Your task to perform on an android device: toggle pop-ups in chrome Image 0: 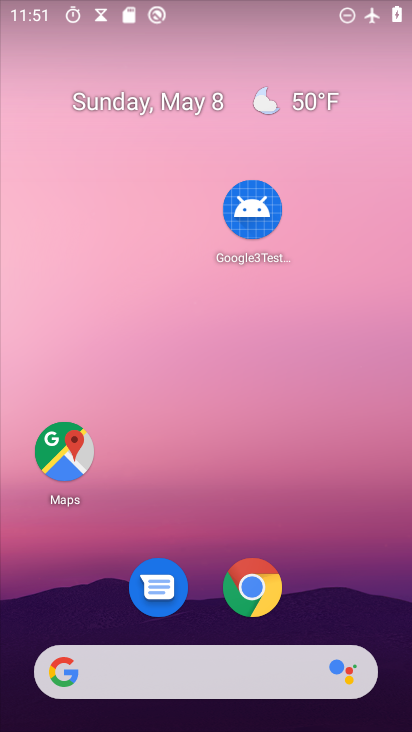
Step 0: click (262, 580)
Your task to perform on an android device: toggle pop-ups in chrome Image 1: 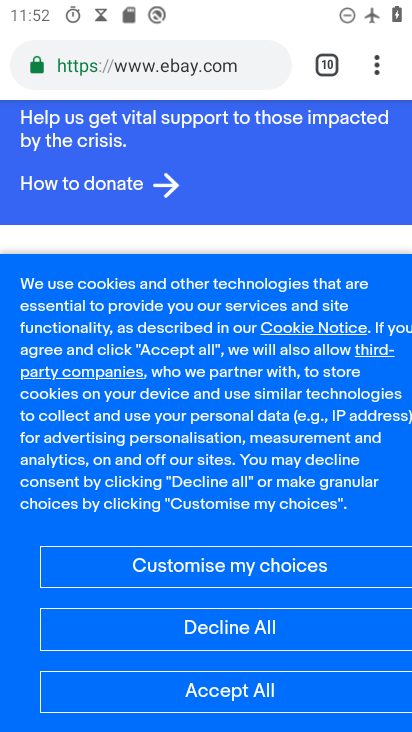
Step 1: drag from (376, 65) to (177, 640)
Your task to perform on an android device: toggle pop-ups in chrome Image 2: 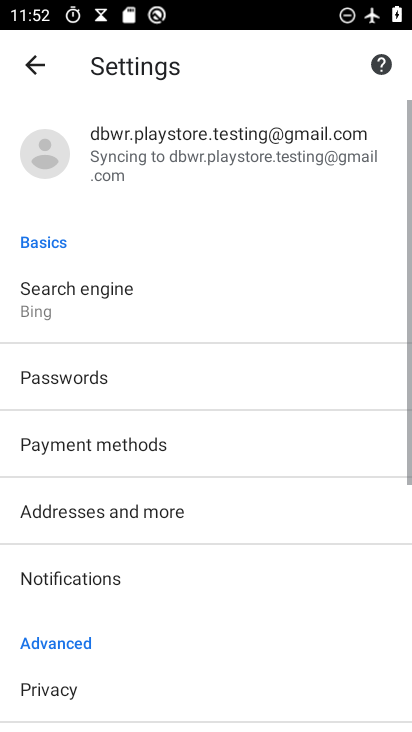
Step 2: drag from (177, 640) to (185, 286)
Your task to perform on an android device: toggle pop-ups in chrome Image 3: 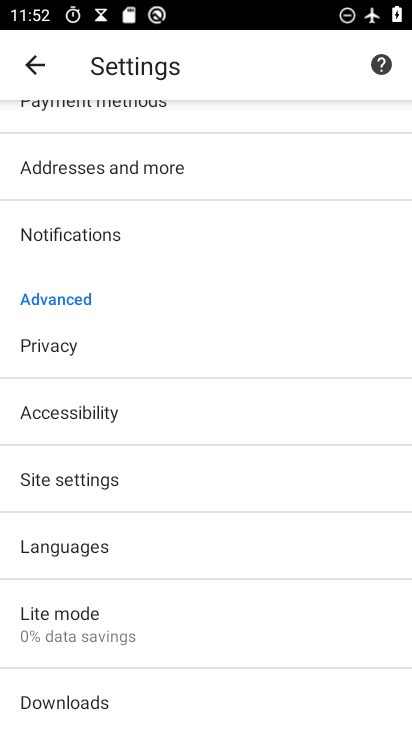
Step 3: drag from (167, 626) to (146, 475)
Your task to perform on an android device: toggle pop-ups in chrome Image 4: 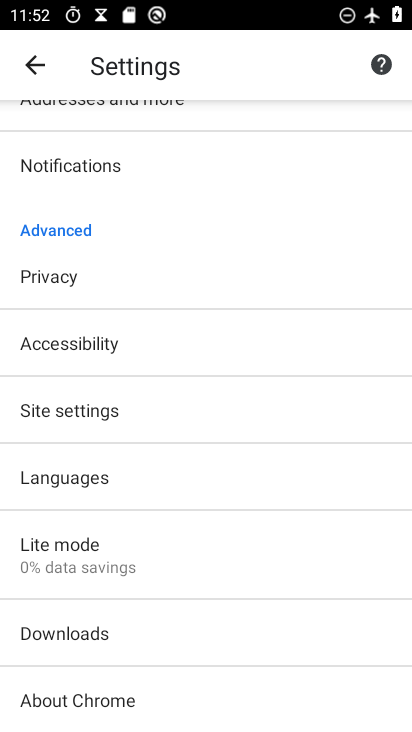
Step 4: click (69, 409)
Your task to perform on an android device: toggle pop-ups in chrome Image 5: 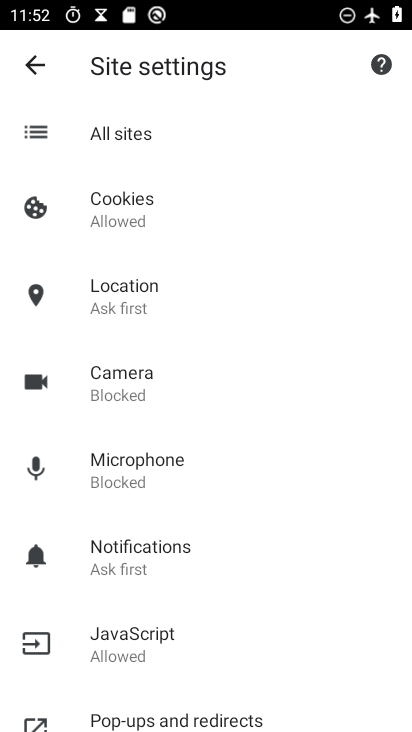
Step 5: drag from (204, 640) to (212, 284)
Your task to perform on an android device: toggle pop-ups in chrome Image 6: 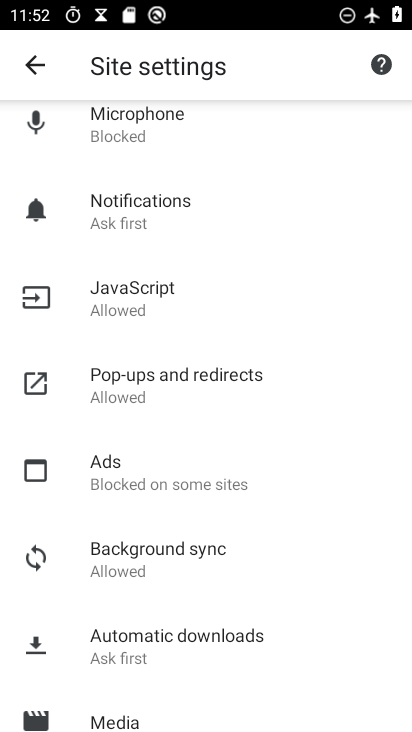
Step 6: click (154, 388)
Your task to perform on an android device: toggle pop-ups in chrome Image 7: 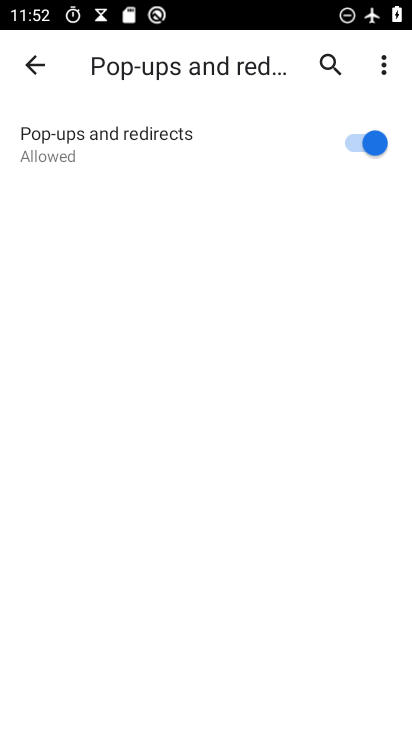
Step 7: click (374, 143)
Your task to perform on an android device: toggle pop-ups in chrome Image 8: 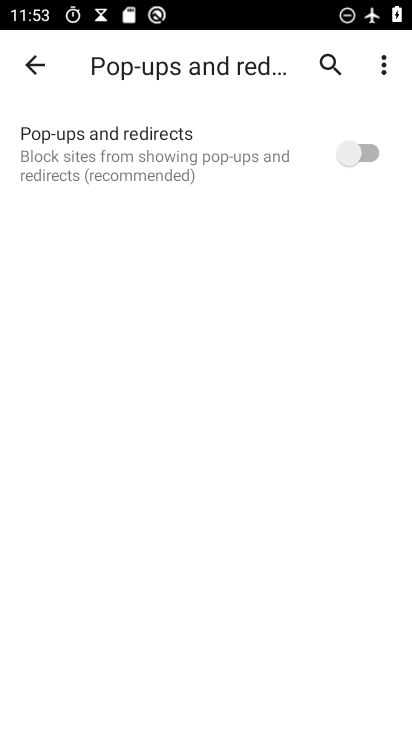
Step 8: task complete